Your task to perform on an android device: turn on improve location accuracy Image 0: 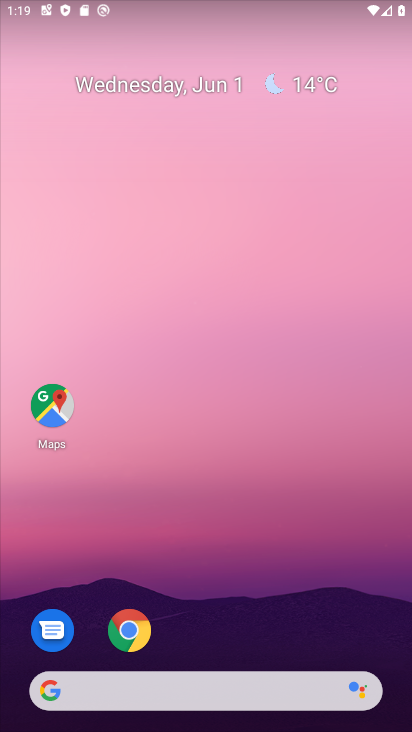
Step 0: press home button
Your task to perform on an android device: turn on improve location accuracy Image 1: 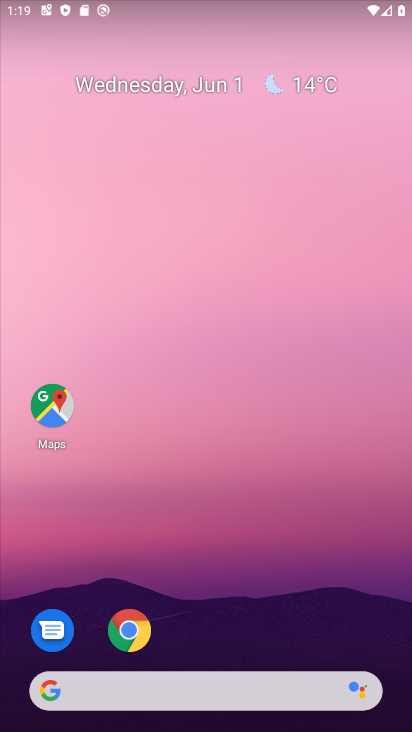
Step 1: drag from (217, 651) to (200, 8)
Your task to perform on an android device: turn on improve location accuracy Image 2: 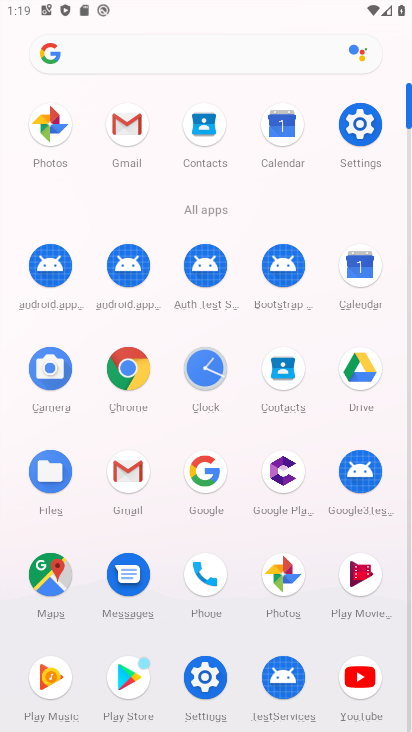
Step 2: click (360, 120)
Your task to perform on an android device: turn on improve location accuracy Image 3: 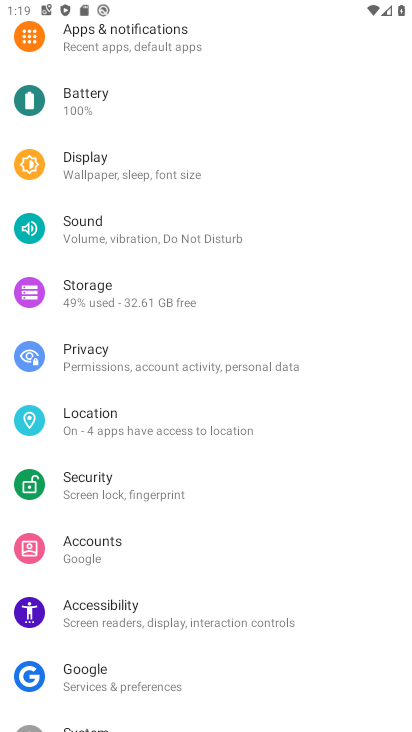
Step 3: click (131, 409)
Your task to perform on an android device: turn on improve location accuracy Image 4: 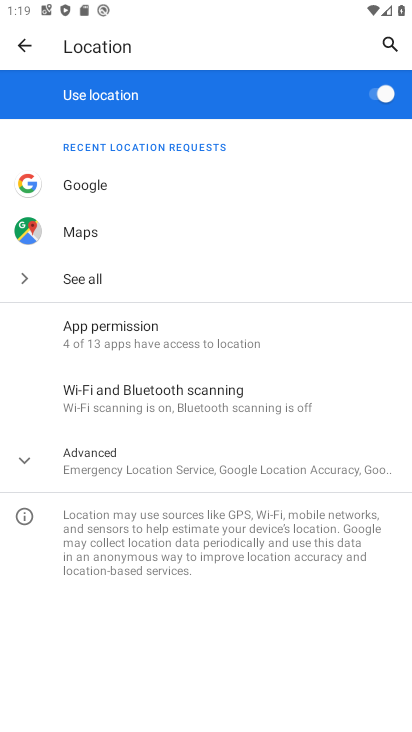
Step 4: click (26, 455)
Your task to perform on an android device: turn on improve location accuracy Image 5: 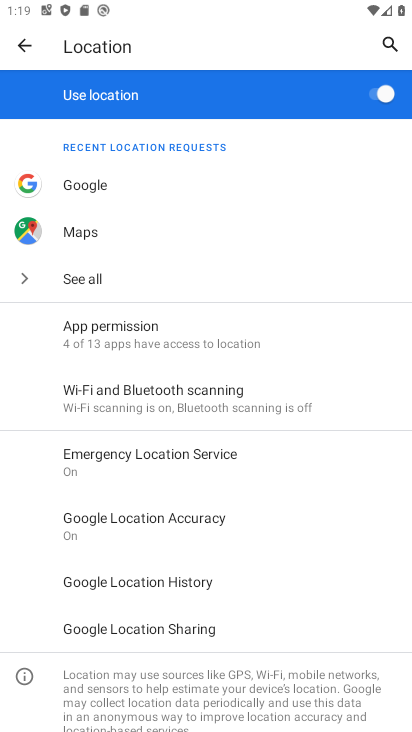
Step 5: click (107, 526)
Your task to perform on an android device: turn on improve location accuracy Image 6: 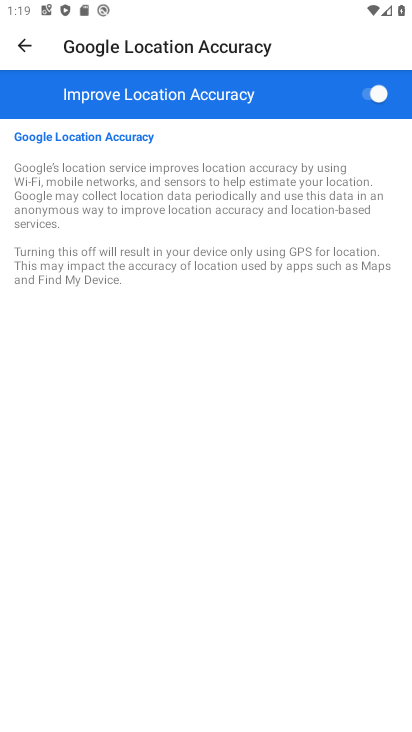
Step 6: task complete